Your task to perform on an android device: Show me popular games on the Play Store Image 0: 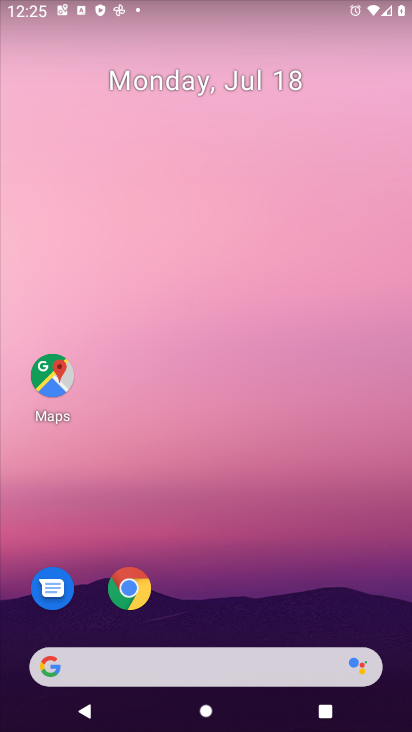
Step 0: drag from (203, 688) to (195, 263)
Your task to perform on an android device: Show me popular games on the Play Store Image 1: 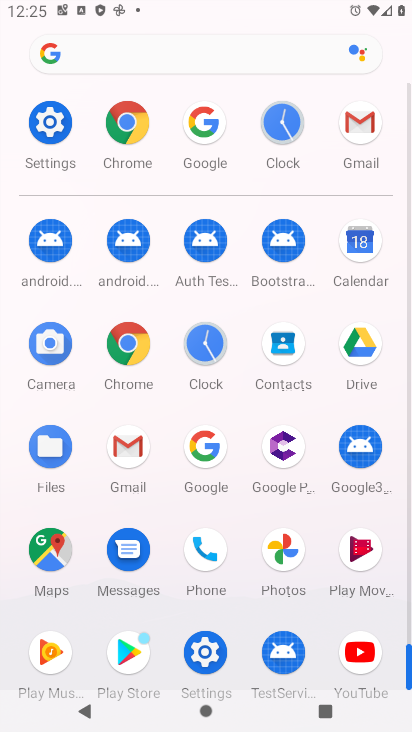
Step 1: click (130, 642)
Your task to perform on an android device: Show me popular games on the Play Store Image 2: 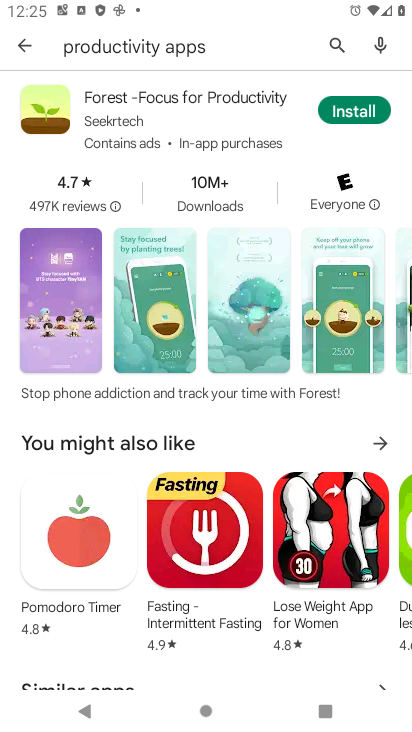
Step 2: click (31, 49)
Your task to perform on an android device: Show me popular games on the Play Store Image 3: 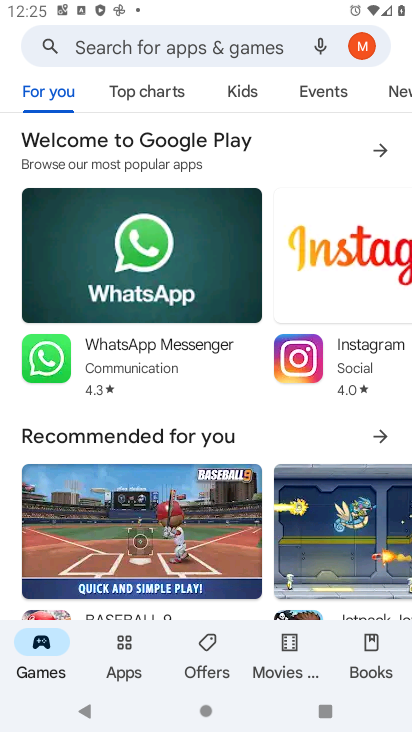
Step 3: task complete